Your task to perform on an android device: install app "DuckDuckGo Privacy Browser" Image 0: 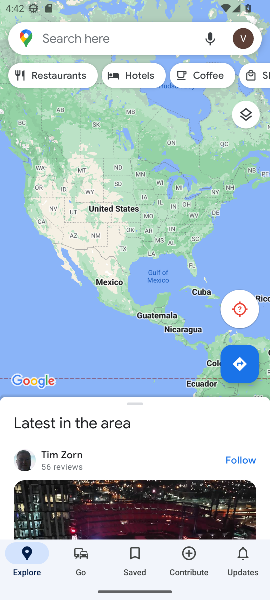
Step 0: press home button
Your task to perform on an android device: install app "DuckDuckGo Privacy Browser" Image 1: 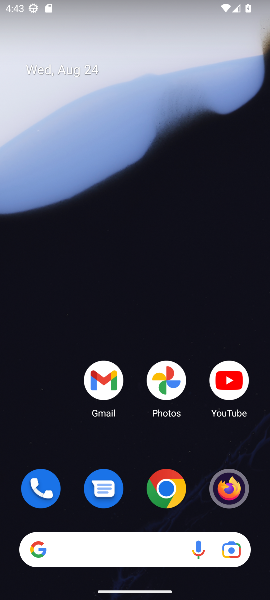
Step 1: drag from (138, 503) to (124, 68)
Your task to perform on an android device: install app "DuckDuckGo Privacy Browser" Image 2: 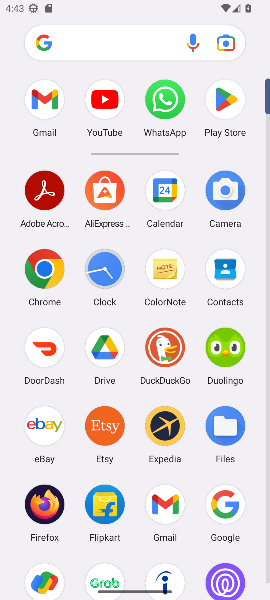
Step 2: click (225, 122)
Your task to perform on an android device: install app "DuckDuckGo Privacy Browser" Image 3: 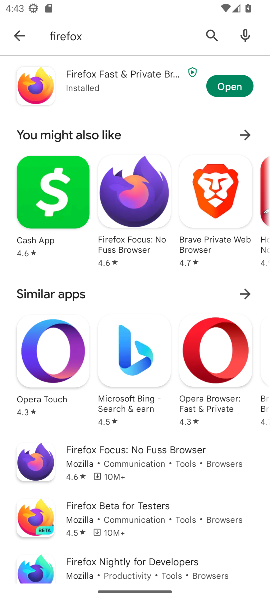
Step 3: click (210, 50)
Your task to perform on an android device: install app "DuckDuckGo Privacy Browser" Image 4: 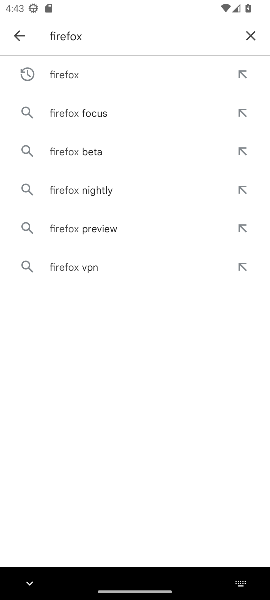
Step 4: click (247, 37)
Your task to perform on an android device: install app "DuckDuckGo Privacy Browser" Image 5: 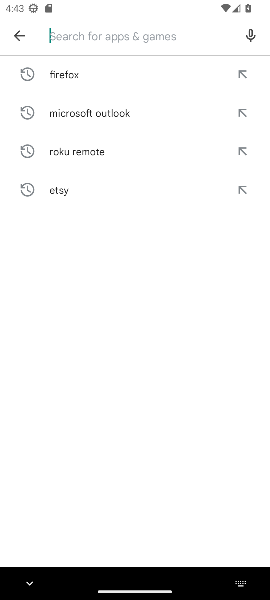
Step 5: type "duck duck"
Your task to perform on an android device: install app "DuckDuckGo Privacy Browser" Image 6: 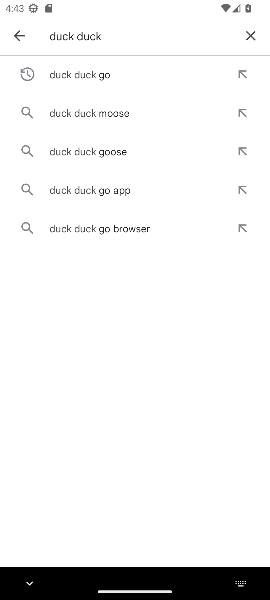
Step 6: click (72, 86)
Your task to perform on an android device: install app "DuckDuckGo Privacy Browser" Image 7: 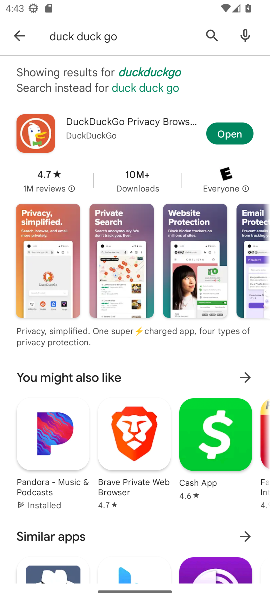
Step 7: click (244, 130)
Your task to perform on an android device: install app "DuckDuckGo Privacy Browser" Image 8: 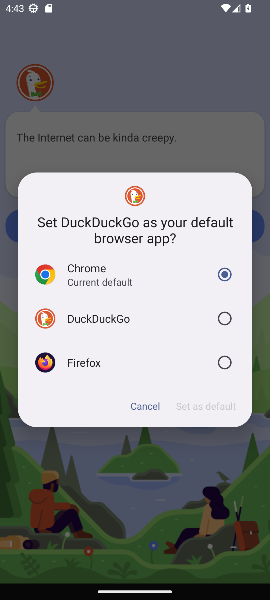
Step 8: click (185, 352)
Your task to perform on an android device: install app "DuckDuckGo Privacy Browser" Image 9: 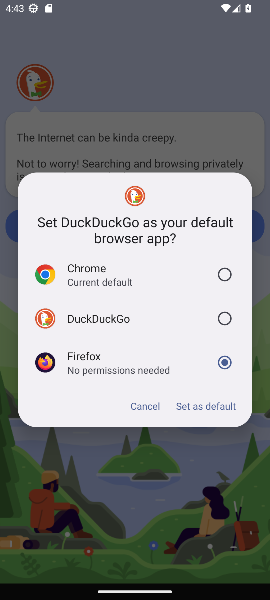
Step 9: click (137, 316)
Your task to perform on an android device: install app "DuckDuckGo Privacy Browser" Image 10: 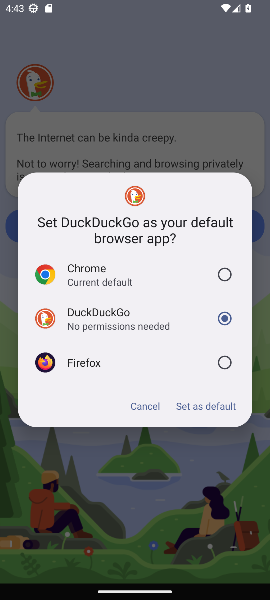
Step 10: click (193, 409)
Your task to perform on an android device: install app "DuckDuckGo Privacy Browser" Image 11: 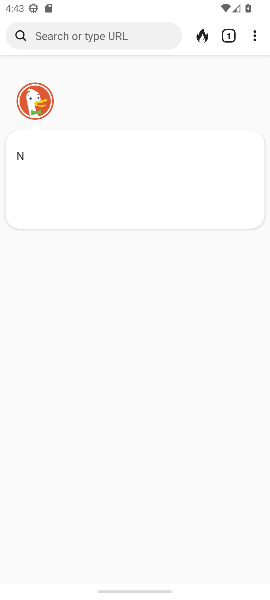
Step 11: task complete